Your task to perform on an android device: Open the stopwatch Image 0: 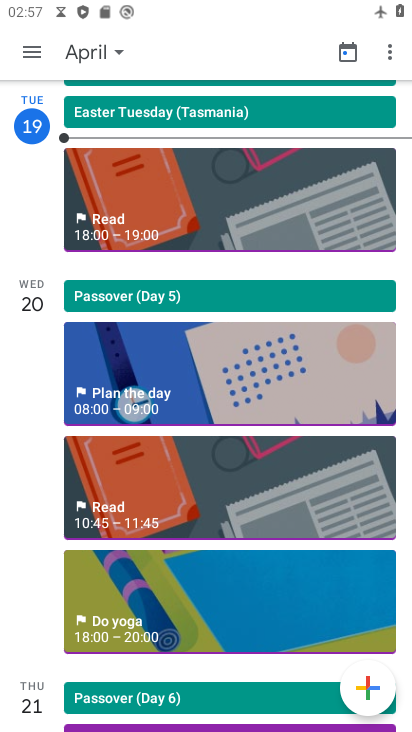
Step 0: press home button
Your task to perform on an android device: Open the stopwatch Image 1: 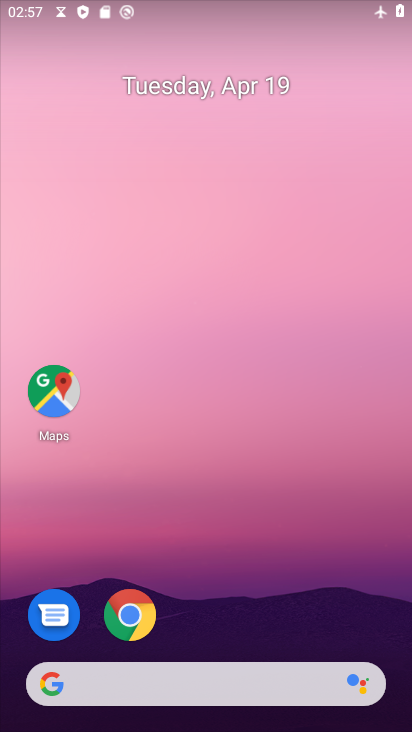
Step 1: drag from (204, 448) to (222, 315)
Your task to perform on an android device: Open the stopwatch Image 2: 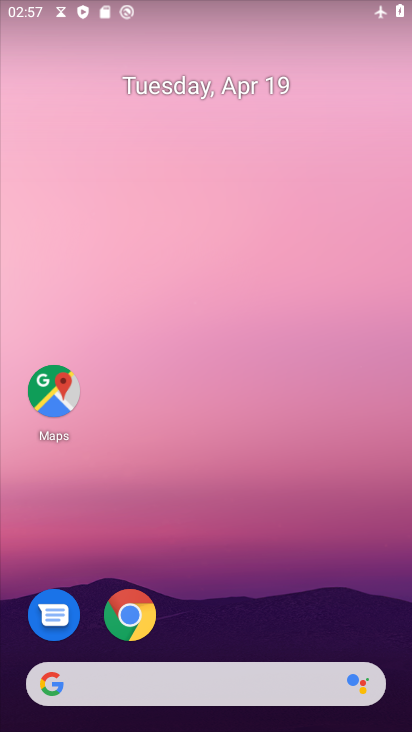
Step 2: drag from (176, 614) to (233, 234)
Your task to perform on an android device: Open the stopwatch Image 3: 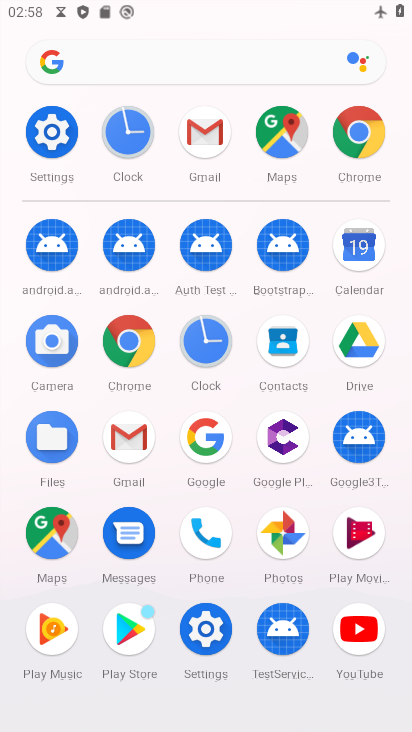
Step 3: click (205, 328)
Your task to perform on an android device: Open the stopwatch Image 4: 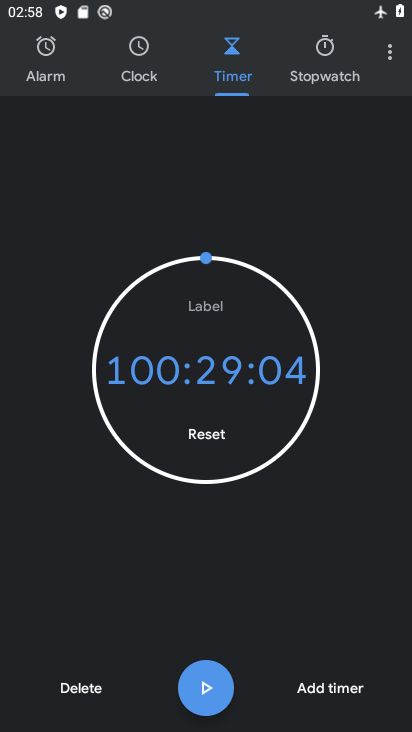
Step 4: click (319, 56)
Your task to perform on an android device: Open the stopwatch Image 5: 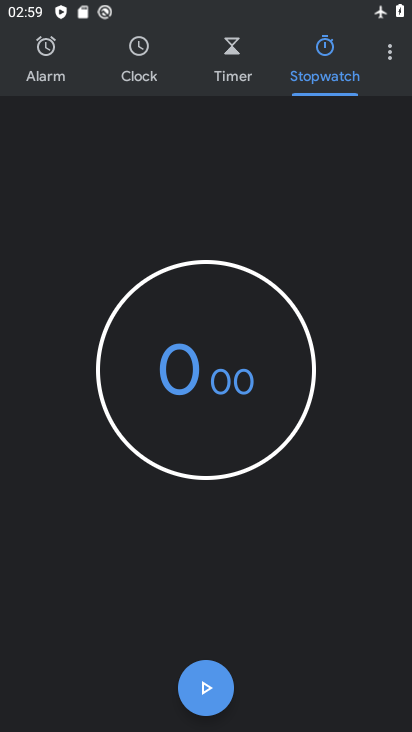
Step 5: task complete